Your task to perform on an android device: open a bookmark in the chrome app Image 0: 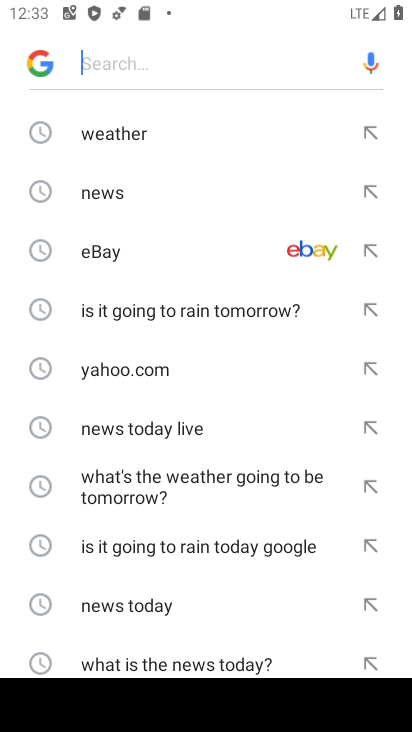
Step 0: press home button
Your task to perform on an android device: open a bookmark in the chrome app Image 1: 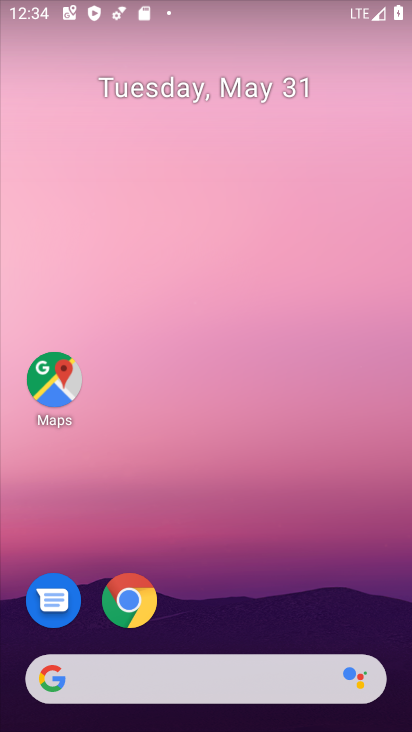
Step 1: click (137, 601)
Your task to perform on an android device: open a bookmark in the chrome app Image 2: 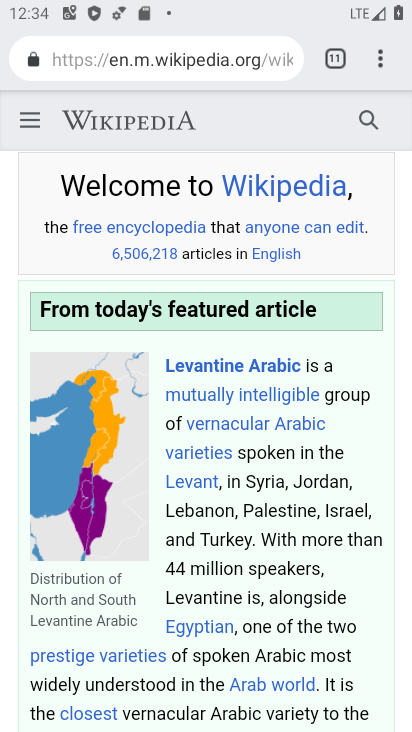
Step 2: click (378, 62)
Your task to perform on an android device: open a bookmark in the chrome app Image 3: 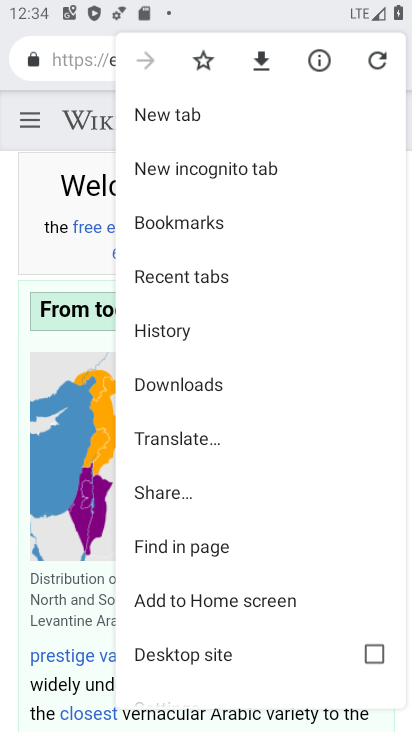
Step 3: click (185, 223)
Your task to perform on an android device: open a bookmark in the chrome app Image 4: 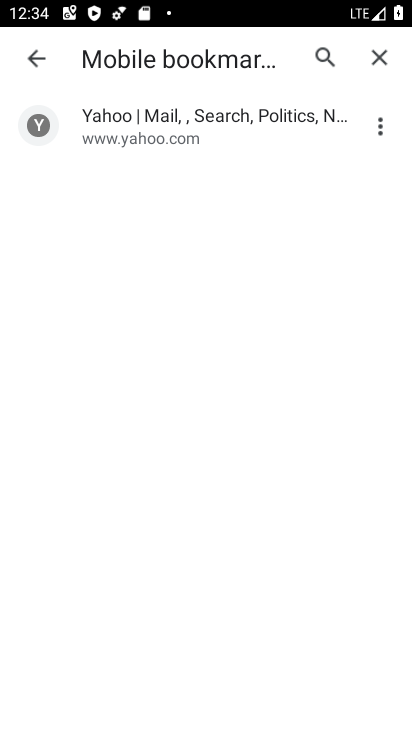
Step 4: click (145, 128)
Your task to perform on an android device: open a bookmark in the chrome app Image 5: 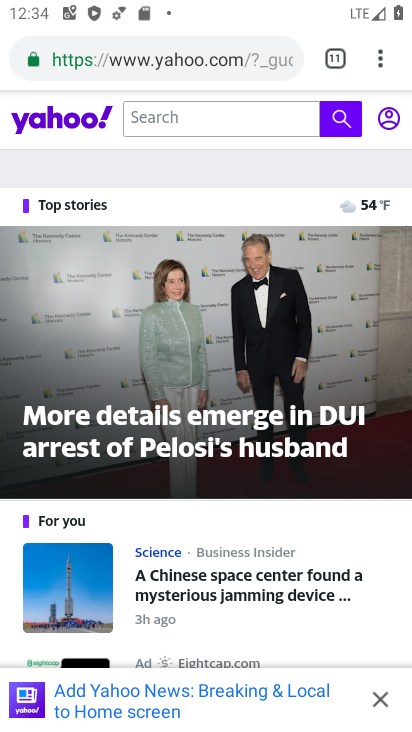
Step 5: task complete